Your task to perform on an android device: open sync settings in chrome Image 0: 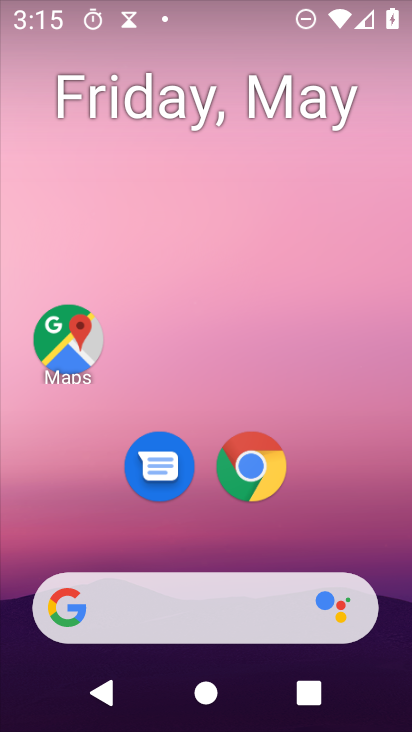
Step 0: drag from (308, 524) to (361, 24)
Your task to perform on an android device: open sync settings in chrome Image 1: 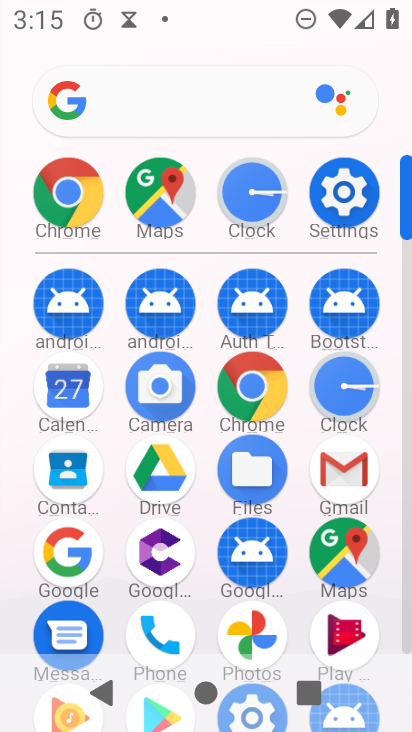
Step 1: click (87, 204)
Your task to perform on an android device: open sync settings in chrome Image 2: 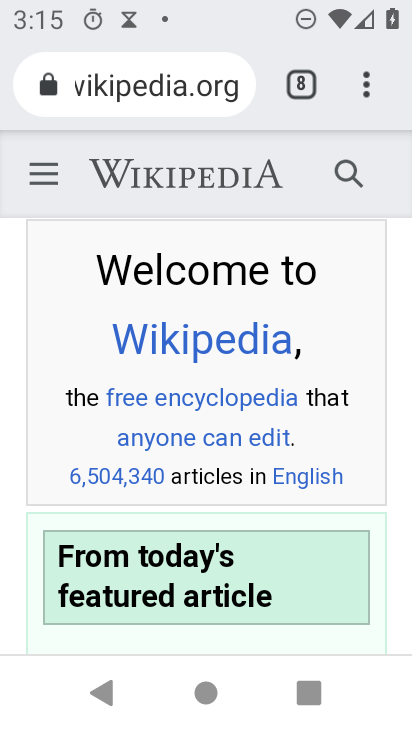
Step 2: drag from (375, 64) to (210, 510)
Your task to perform on an android device: open sync settings in chrome Image 3: 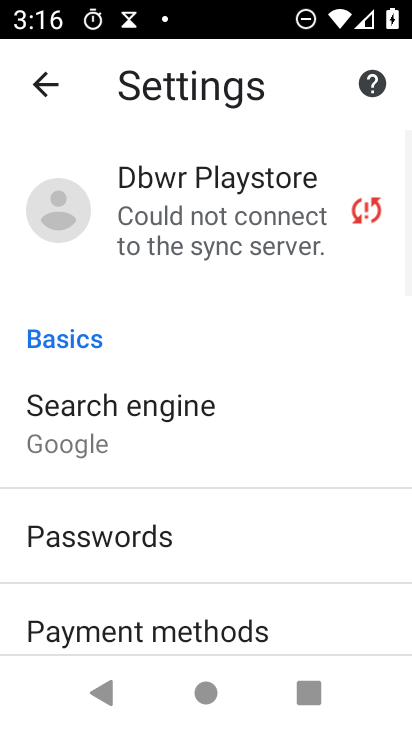
Step 3: drag from (204, 581) to (213, 135)
Your task to perform on an android device: open sync settings in chrome Image 4: 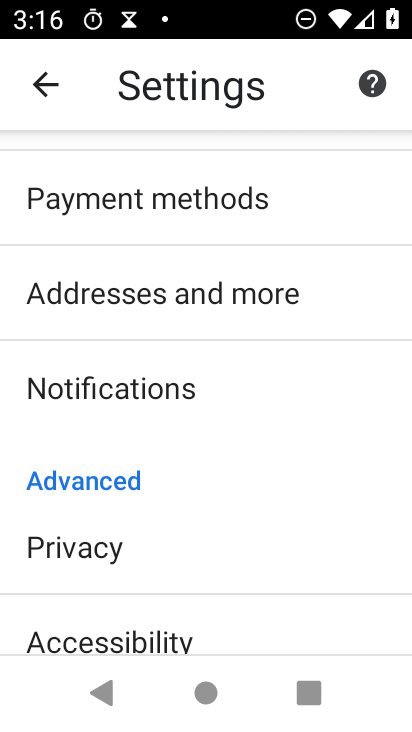
Step 4: drag from (212, 566) to (248, 191)
Your task to perform on an android device: open sync settings in chrome Image 5: 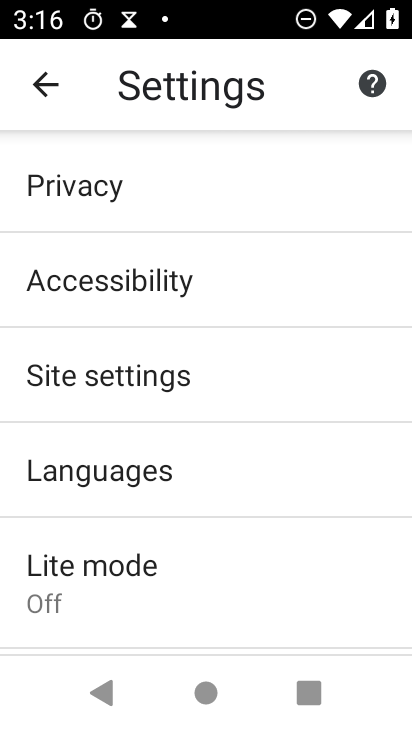
Step 5: click (177, 369)
Your task to perform on an android device: open sync settings in chrome Image 6: 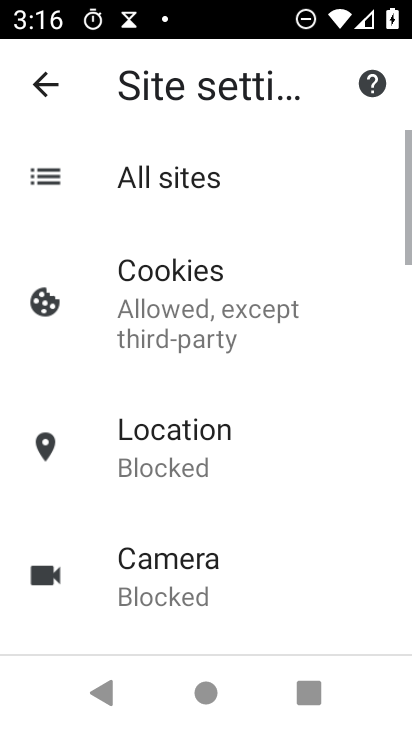
Step 6: drag from (251, 531) to (279, 72)
Your task to perform on an android device: open sync settings in chrome Image 7: 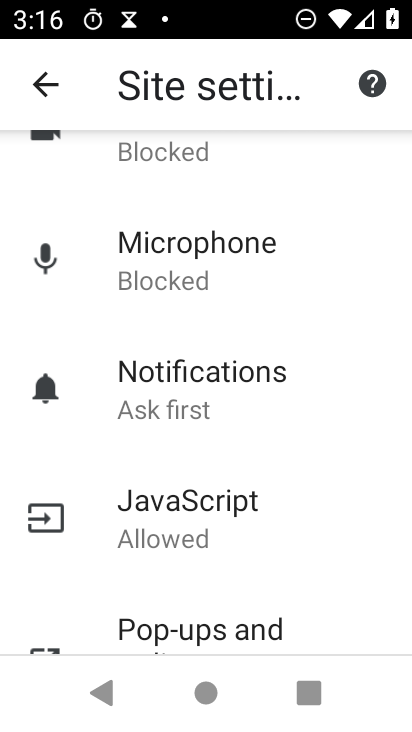
Step 7: drag from (272, 572) to (284, 140)
Your task to perform on an android device: open sync settings in chrome Image 8: 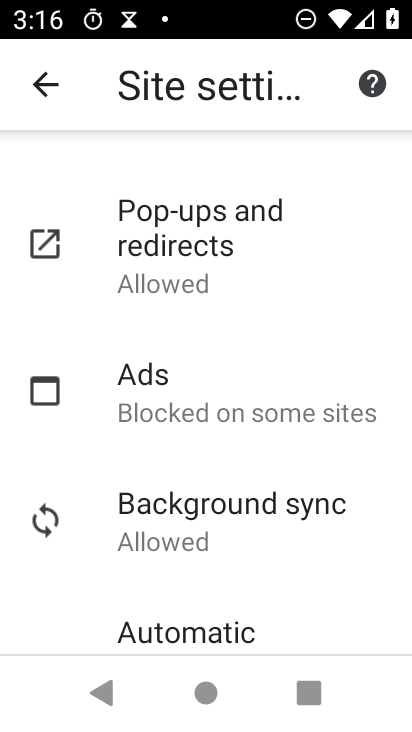
Step 8: click (238, 506)
Your task to perform on an android device: open sync settings in chrome Image 9: 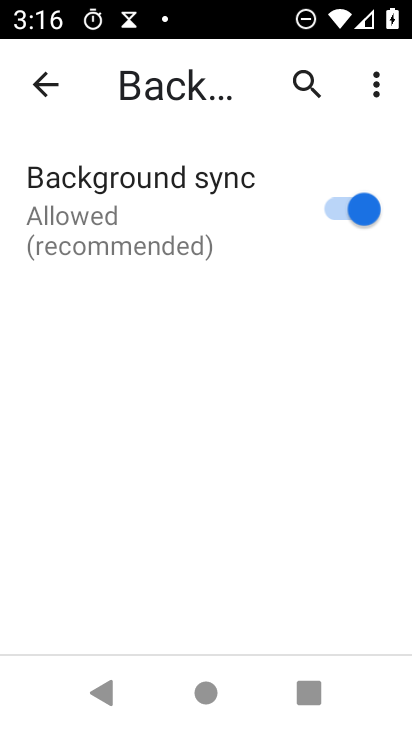
Step 9: task complete